Your task to perform on an android device: turn on javascript in the chrome app Image 0: 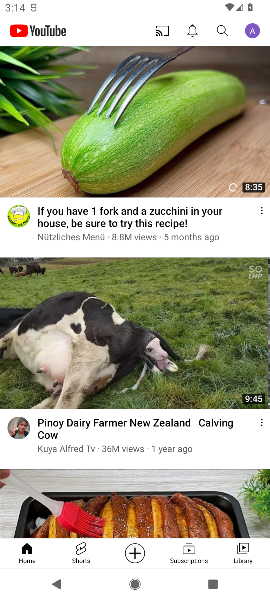
Step 0: press back button
Your task to perform on an android device: turn on javascript in the chrome app Image 1: 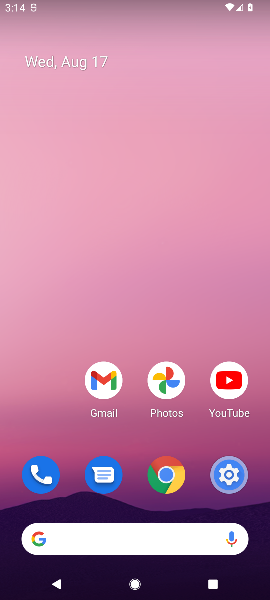
Step 1: click (155, 471)
Your task to perform on an android device: turn on javascript in the chrome app Image 2: 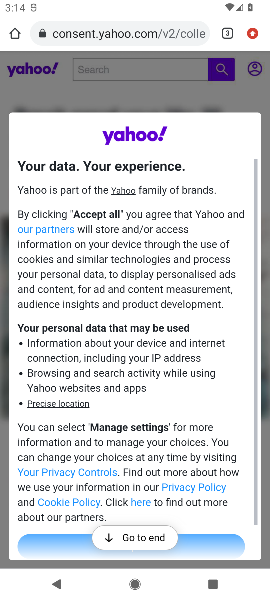
Step 2: click (257, 38)
Your task to perform on an android device: turn on javascript in the chrome app Image 3: 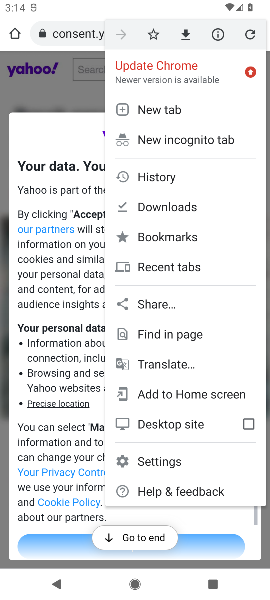
Step 3: click (126, 454)
Your task to perform on an android device: turn on javascript in the chrome app Image 4: 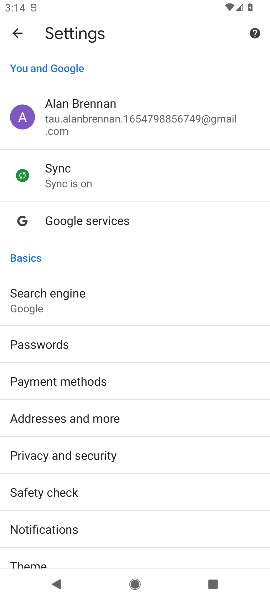
Step 4: drag from (126, 454) to (135, 27)
Your task to perform on an android device: turn on javascript in the chrome app Image 5: 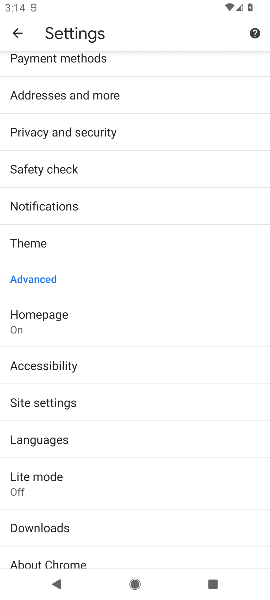
Step 5: click (50, 396)
Your task to perform on an android device: turn on javascript in the chrome app Image 6: 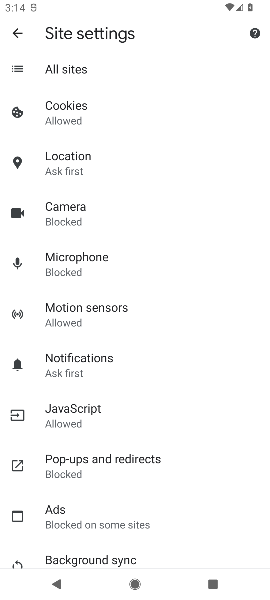
Step 6: click (54, 404)
Your task to perform on an android device: turn on javascript in the chrome app Image 7: 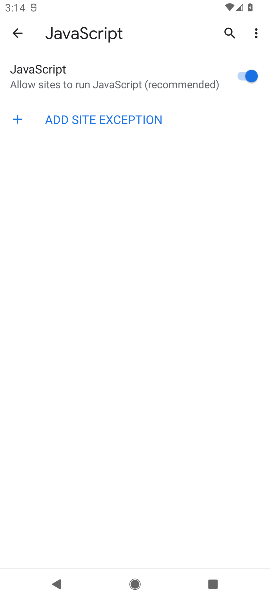
Step 7: task complete